Your task to perform on an android device: turn on the 12-hour format for clock Image 0: 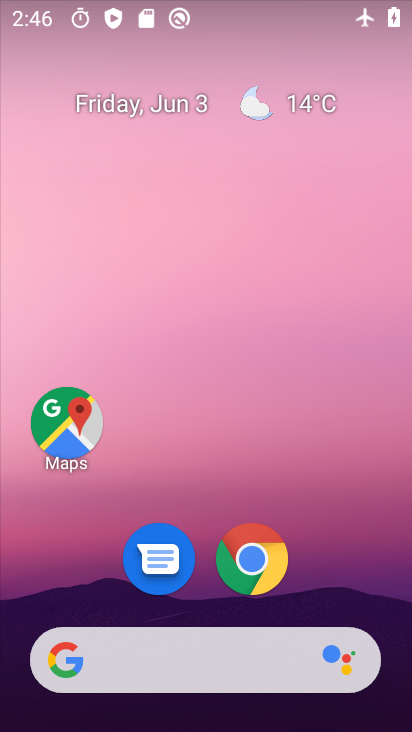
Step 0: drag from (217, 621) to (201, 55)
Your task to perform on an android device: turn on the 12-hour format for clock Image 1: 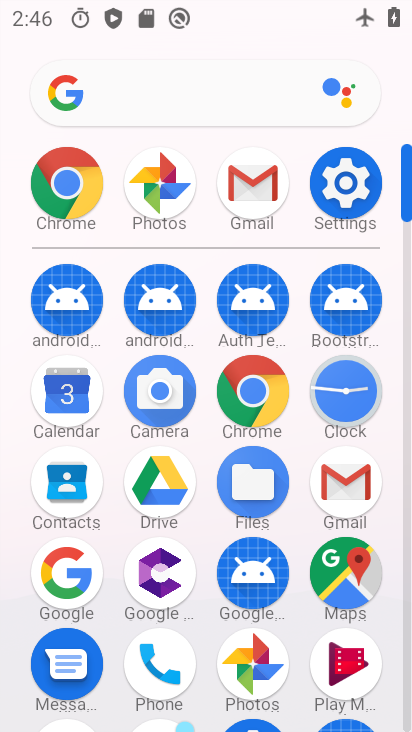
Step 1: click (334, 377)
Your task to perform on an android device: turn on the 12-hour format for clock Image 2: 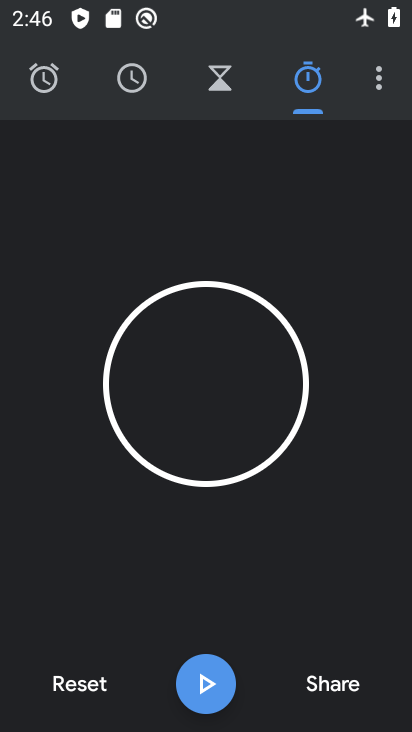
Step 2: drag from (374, 80) to (276, 158)
Your task to perform on an android device: turn on the 12-hour format for clock Image 3: 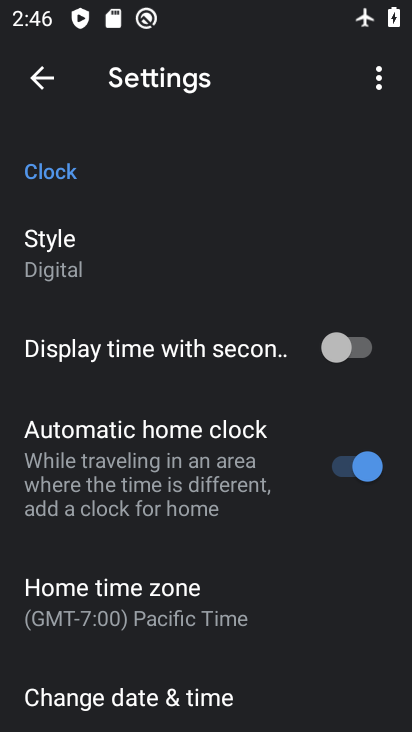
Step 3: drag from (279, 638) to (252, 116)
Your task to perform on an android device: turn on the 12-hour format for clock Image 4: 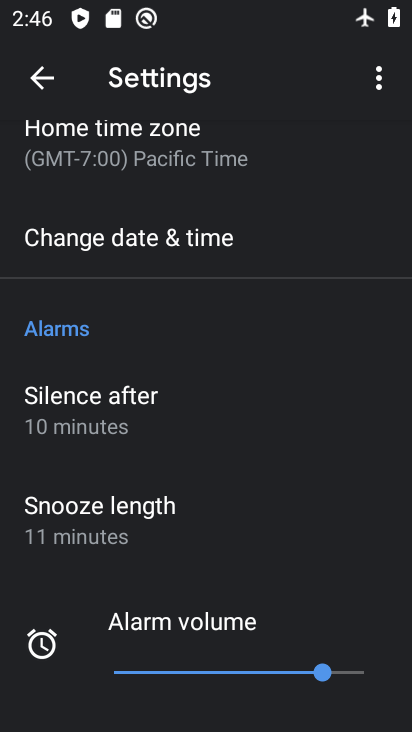
Step 4: drag from (207, 573) to (200, 464)
Your task to perform on an android device: turn on the 12-hour format for clock Image 5: 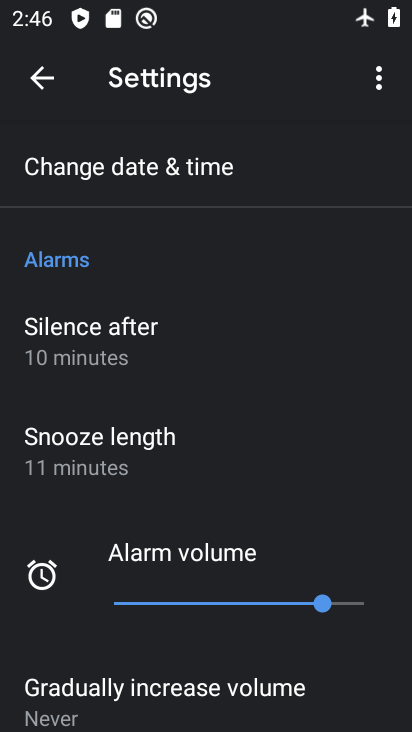
Step 5: click (137, 194)
Your task to perform on an android device: turn on the 12-hour format for clock Image 6: 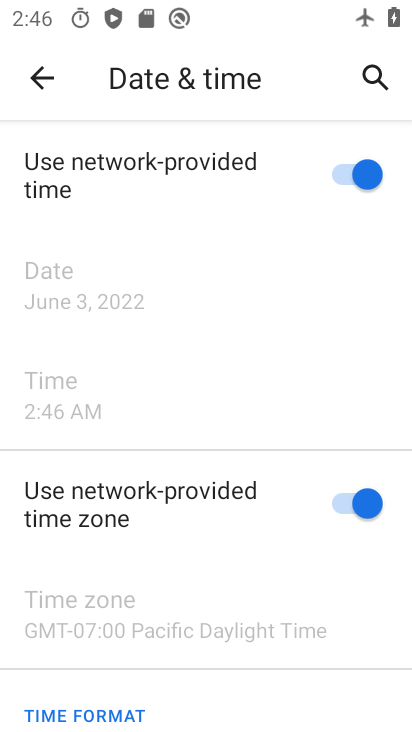
Step 6: task complete